Your task to perform on an android device: Open Google Chrome and open the bookmarks view Image 0: 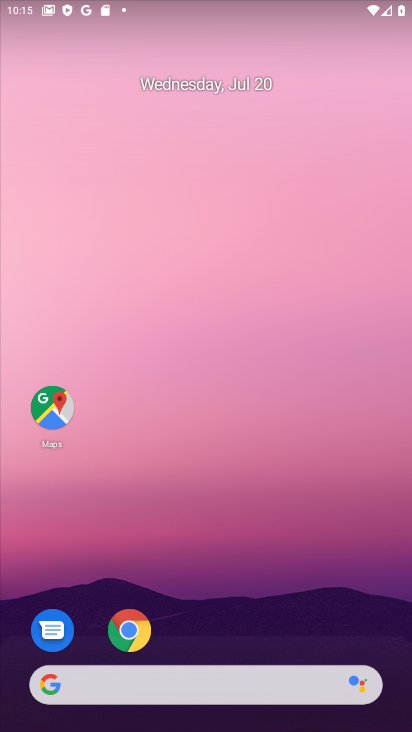
Step 0: drag from (188, 635) to (246, 197)
Your task to perform on an android device: Open Google Chrome and open the bookmarks view Image 1: 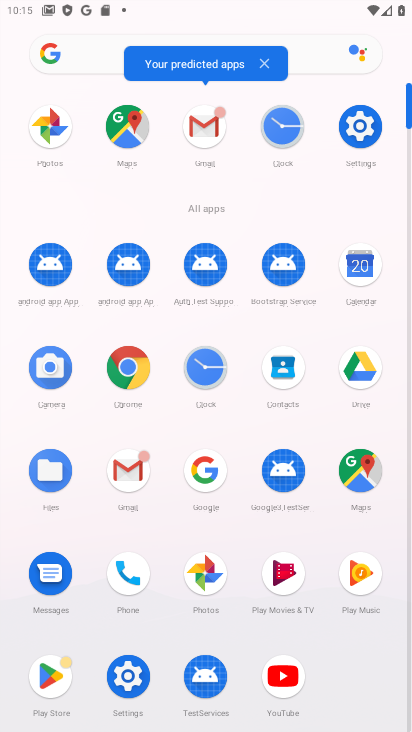
Step 1: click (115, 362)
Your task to perform on an android device: Open Google Chrome and open the bookmarks view Image 2: 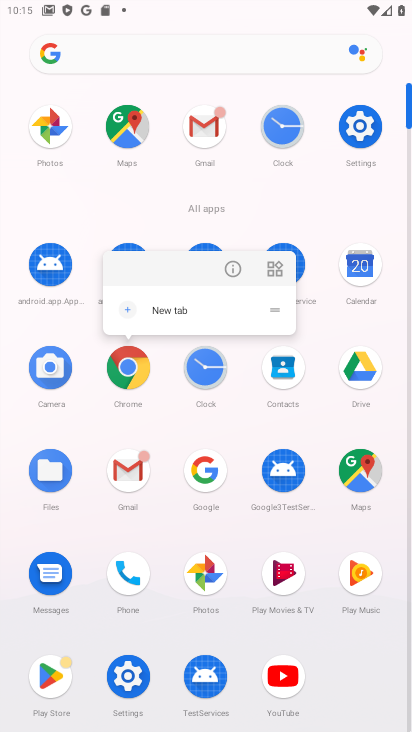
Step 2: click (227, 271)
Your task to perform on an android device: Open Google Chrome and open the bookmarks view Image 3: 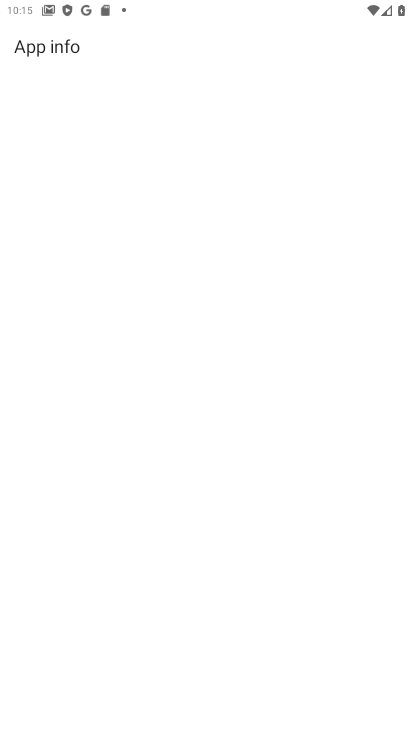
Step 3: drag from (191, 579) to (230, 237)
Your task to perform on an android device: Open Google Chrome and open the bookmarks view Image 4: 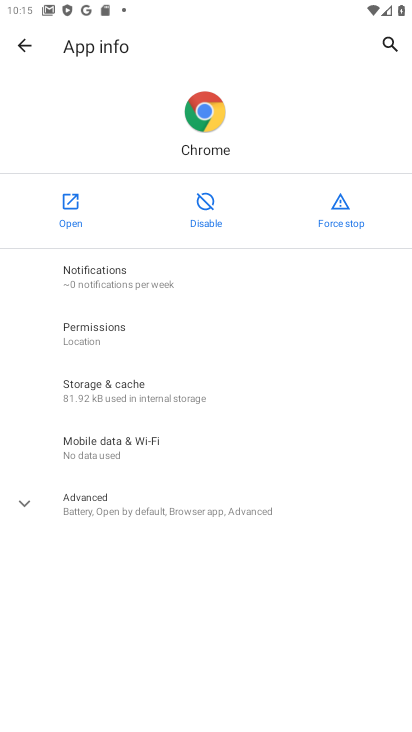
Step 4: click (58, 204)
Your task to perform on an android device: Open Google Chrome and open the bookmarks view Image 5: 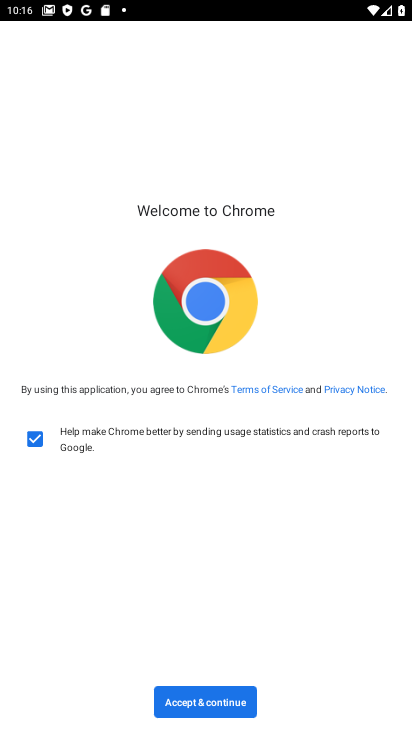
Step 5: click (227, 697)
Your task to perform on an android device: Open Google Chrome and open the bookmarks view Image 6: 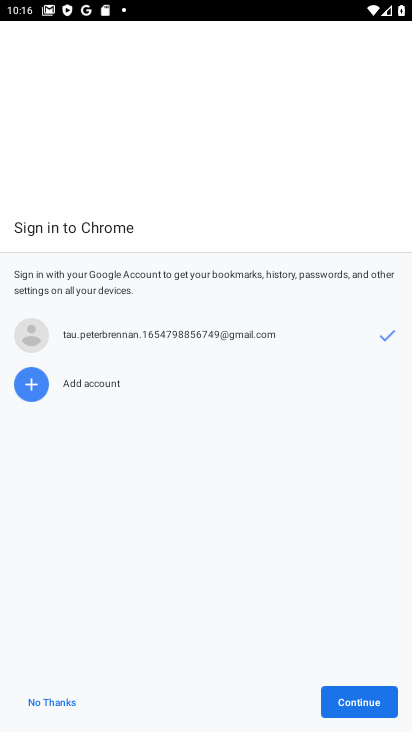
Step 6: click (369, 687)
Your task to perform on an android device: Open Google Chrome and open the bookmarks view Image 7: 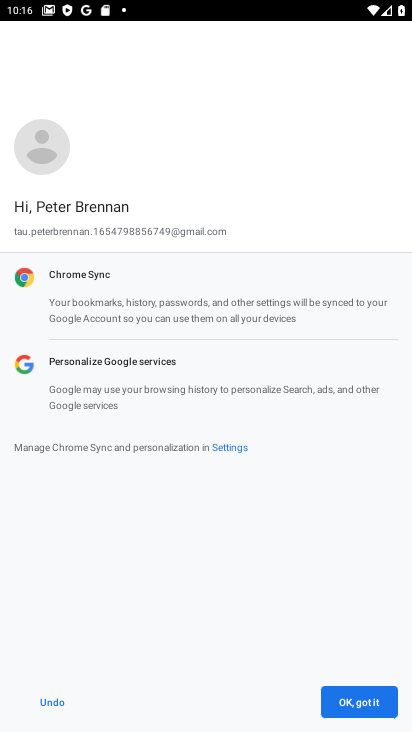
Step 7: click (367, 695)
Your task to perform on an android device: Open Google Chrome and open the bookmarks view Image 8: 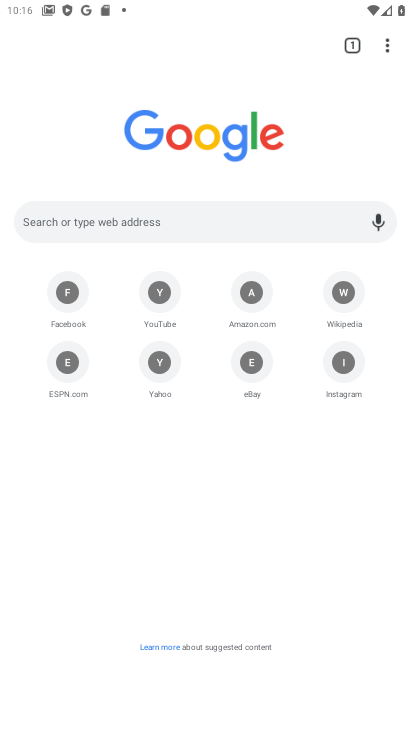
Step 8: task complete